Your task to perform on an android device: Open Reddit.com Image 0: 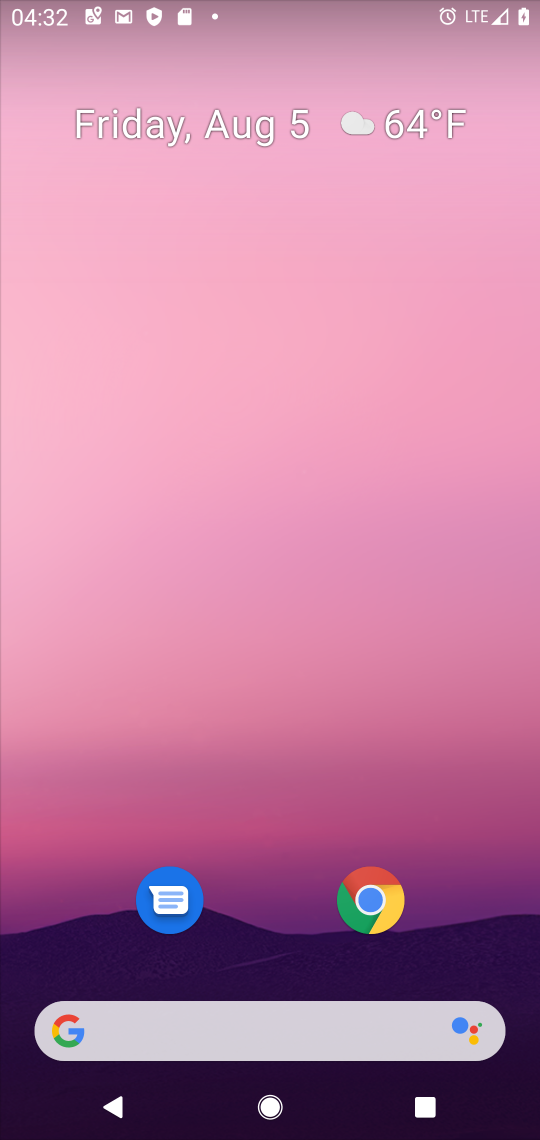
Step 0: click (362, 907)
Your task to perform on an android device: Open Reddit.com Image 1: 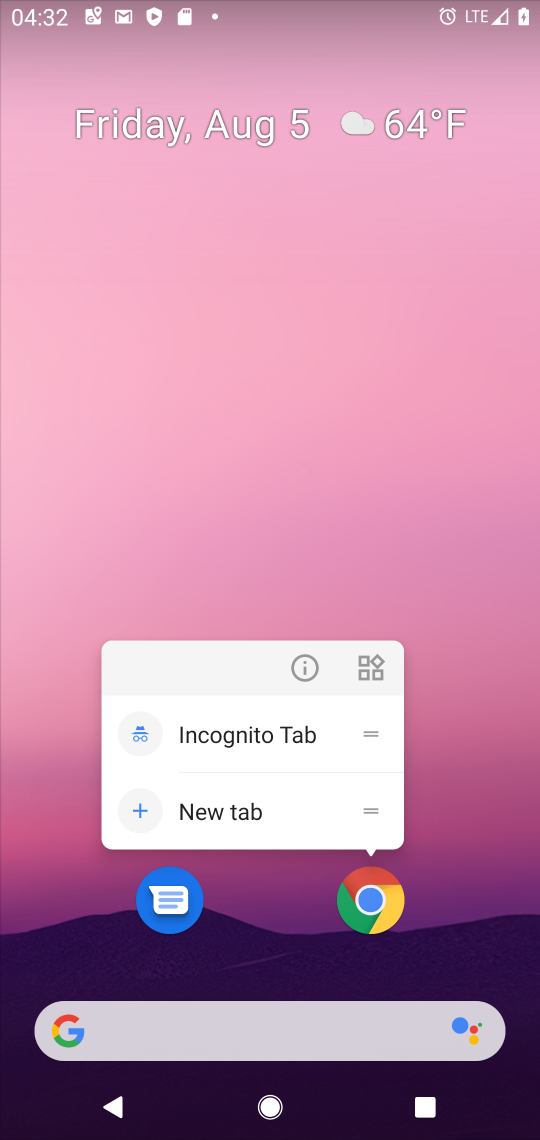
Step 1: click (368, 903)
Your task to perform on an android device: Open Reddit.com Image 2: 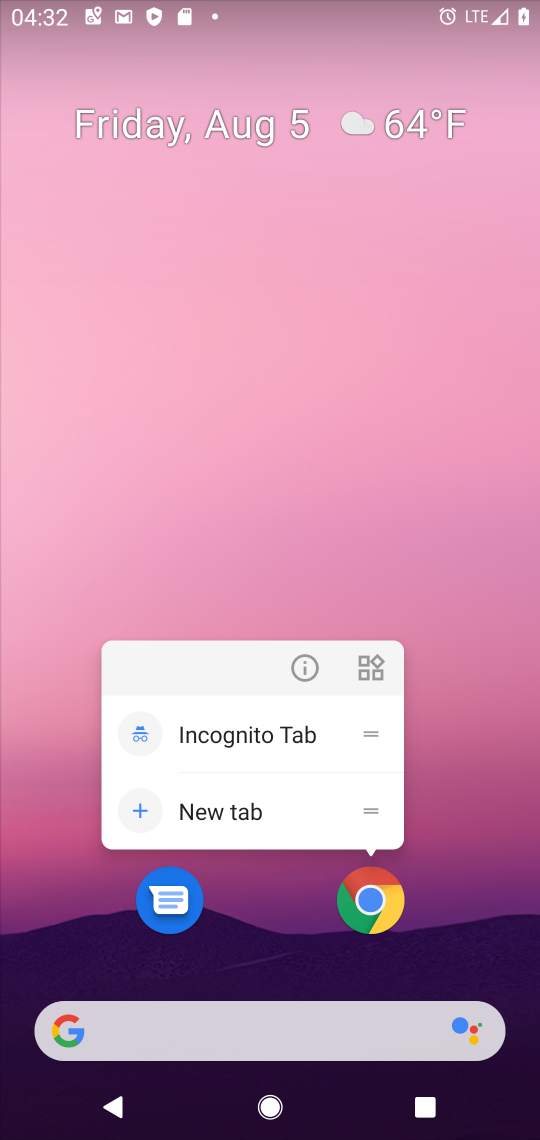
Step 2: click (381, 888)
Your task to perform on an android device: Open Reddit.com Image 3: 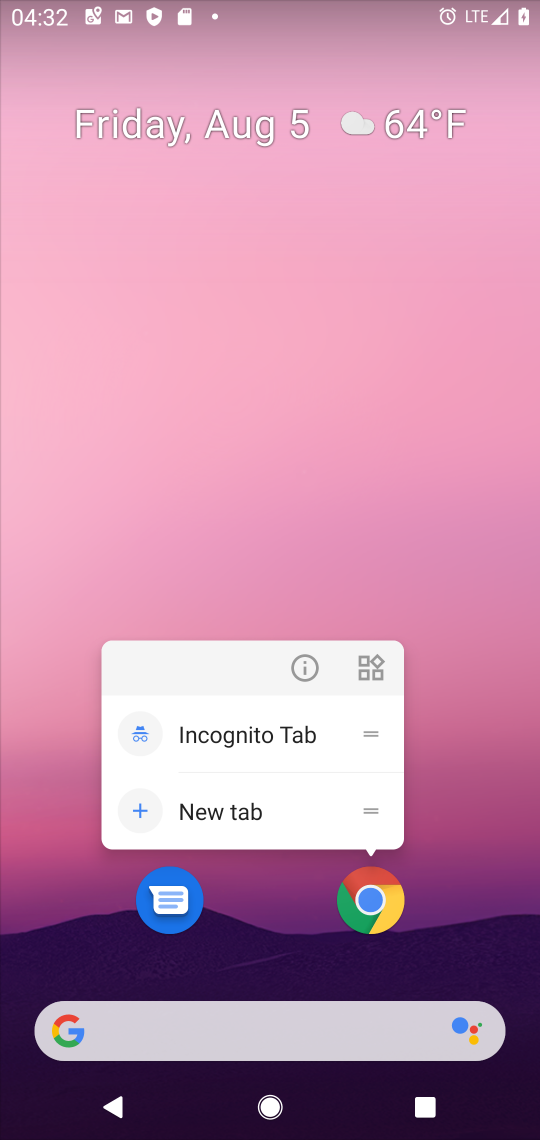
Step 3: click (381, 895)
Your task to perform on an android device: Open Reddit.com Image 4: 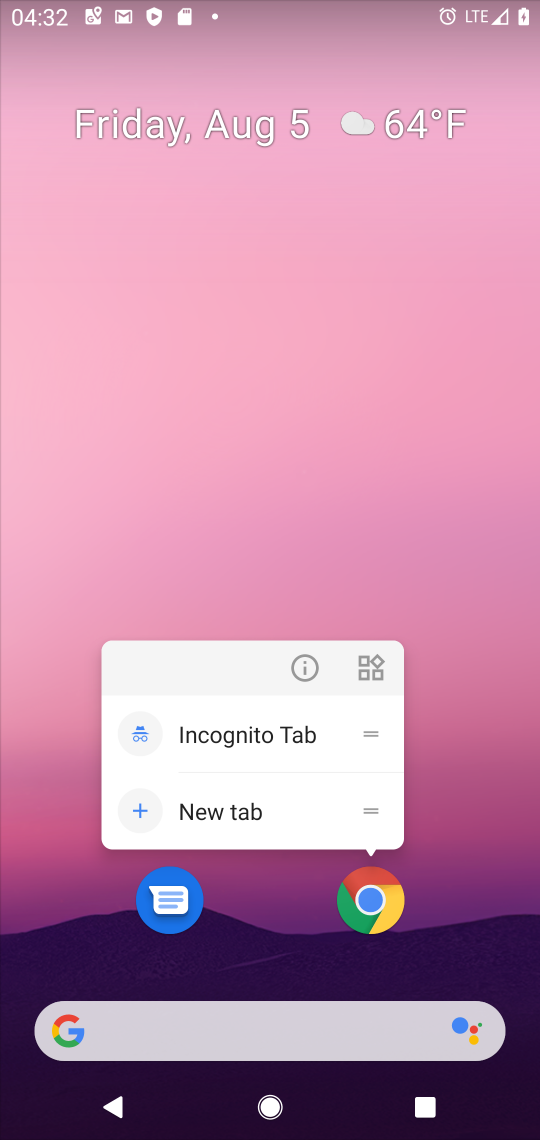
Step 4: click (375, 907)
Your task to perform on an android device: Open Reddit.com Image 5: 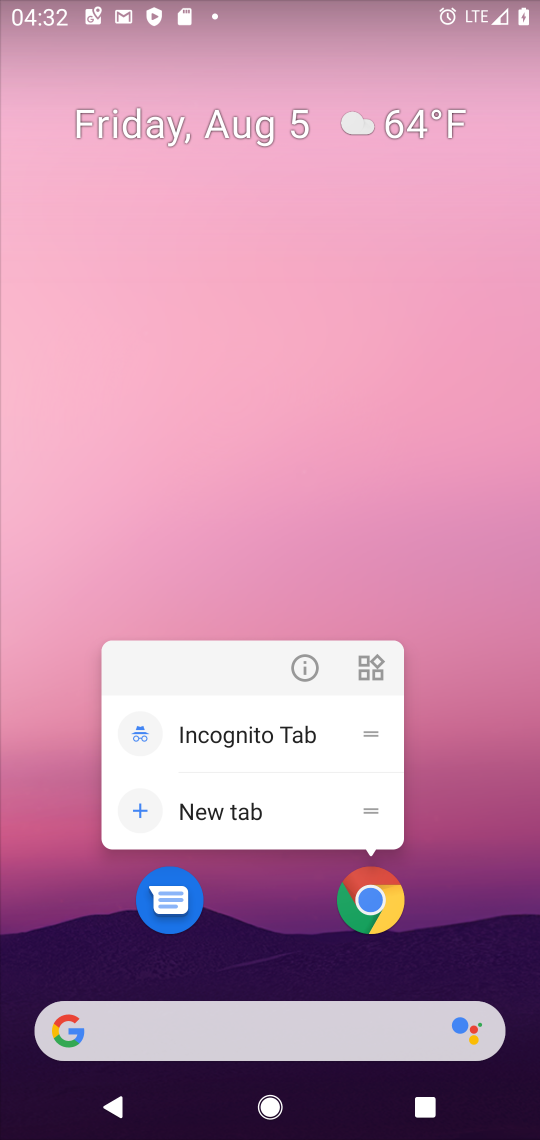
Step 5: click (375, 907)
Your task to perform on an android device: Open Reddit.com Image 6: 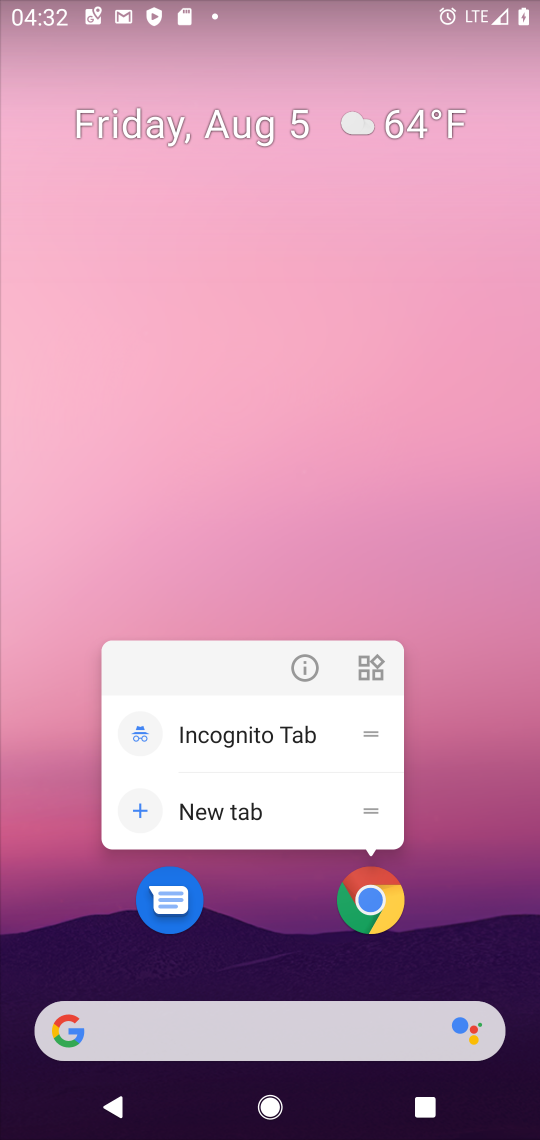
Step 6: click (380, 896)
Your task to perform on an android device: Open Reddit.com Image 7: 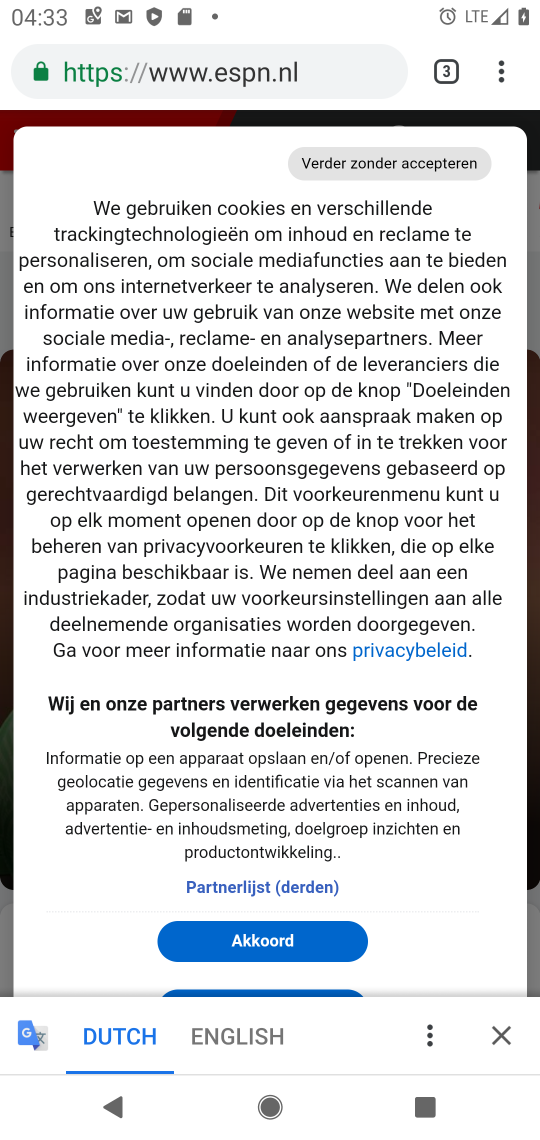
Step 7: click (453, 76)
Your task to perform on an android device: Open Reddit.com Image 8: 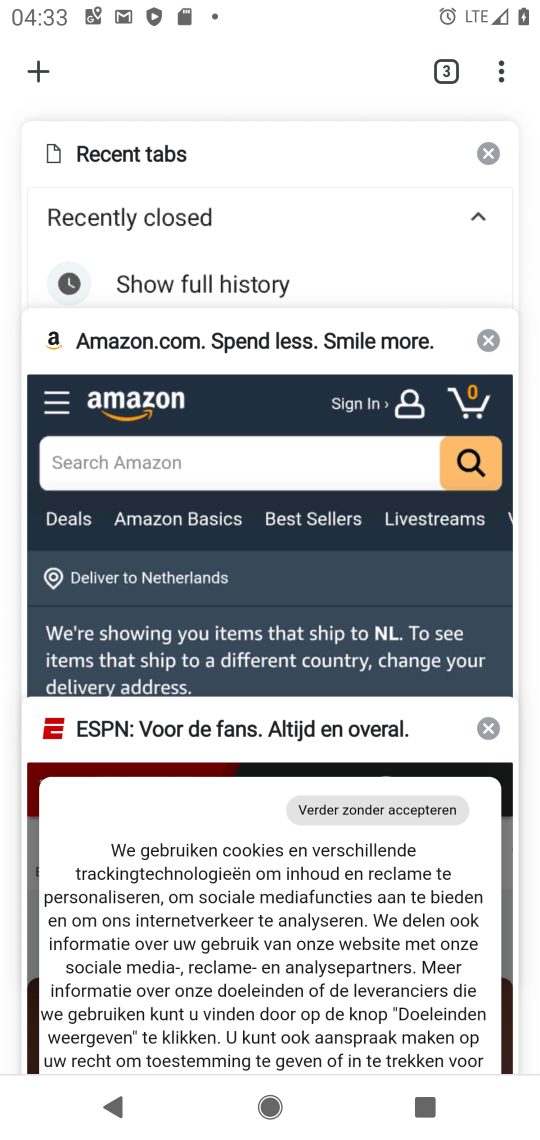
Step 8: click (59, 73)
Your task to perform on an android device: Open Reddit.com Image 9: 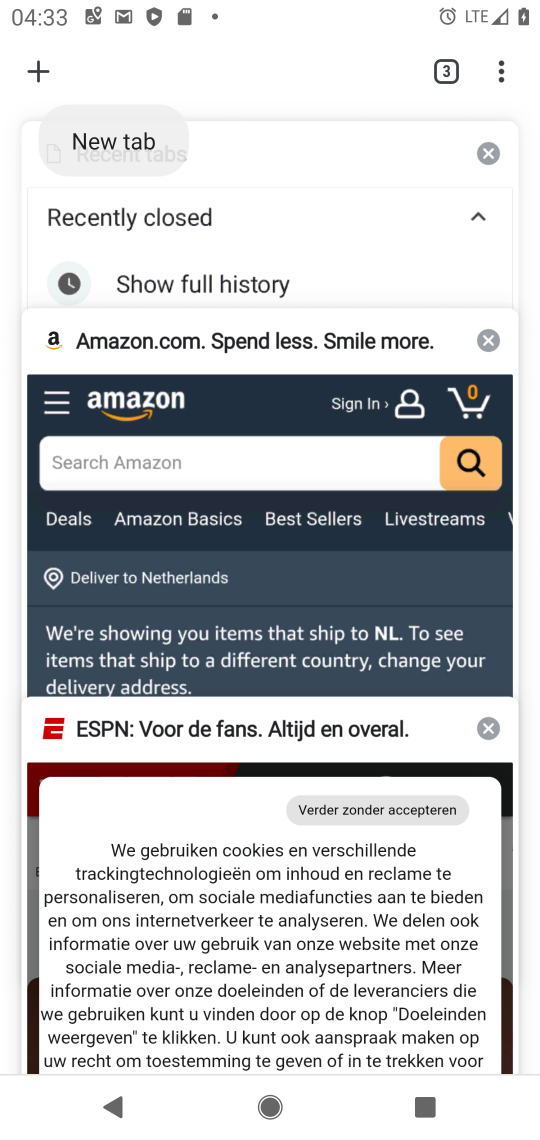
Step 9: click (33, 67)
Your task to perform on an android device: Open Reddit.com Image 10: 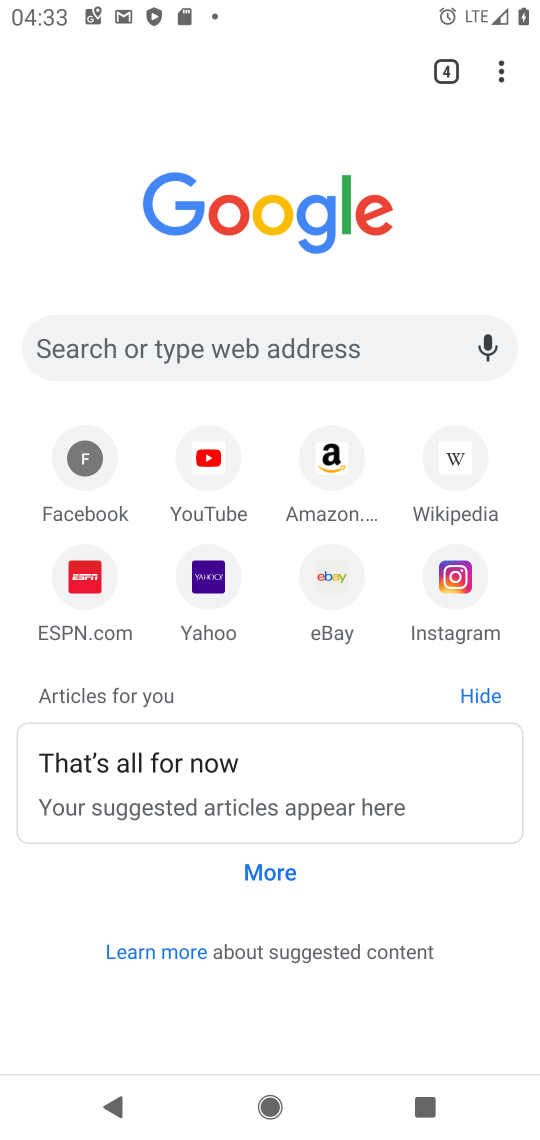
Step 10: click (191, 343)
Your task to perform on an android device: Open Reddit.com Image 11: 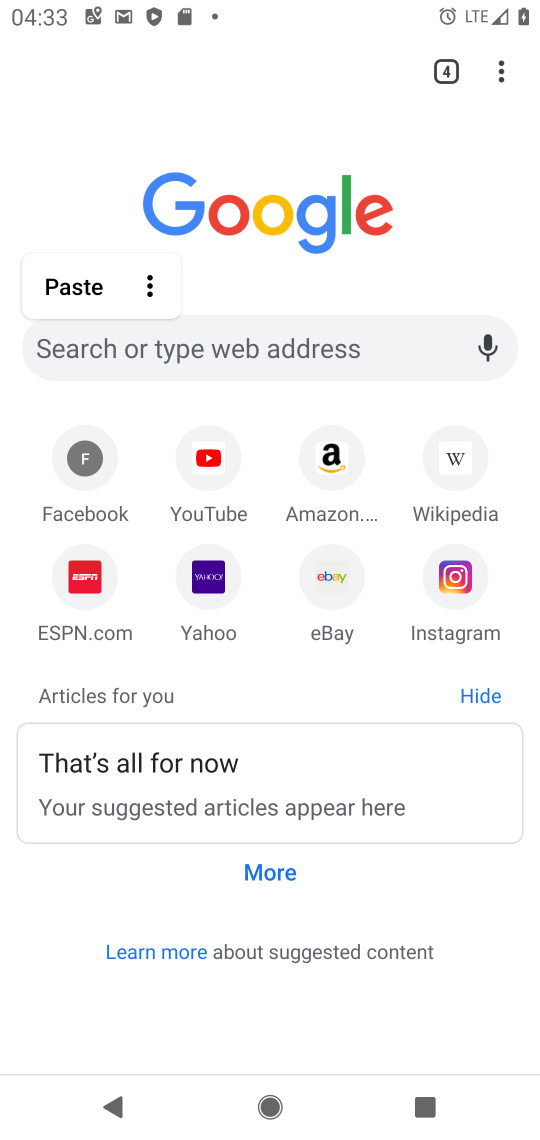
Step 11: type "reddit.com"
Your task to perform on an android device: Open Reddit.com Image 12: 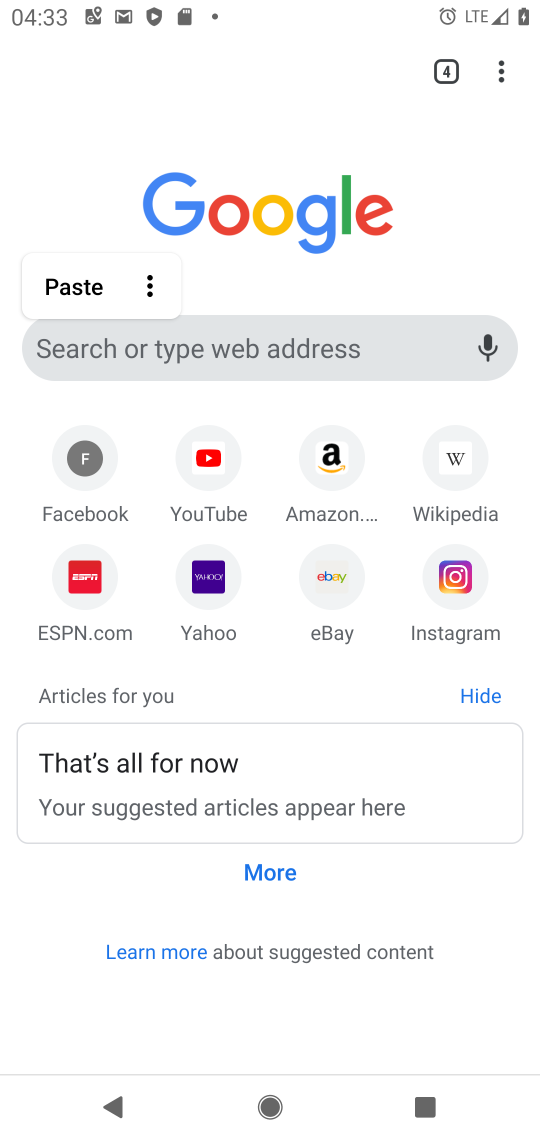
Step 12: click (327, 338)
Your task to perform on an android device: Open Reddit.com Image 13: 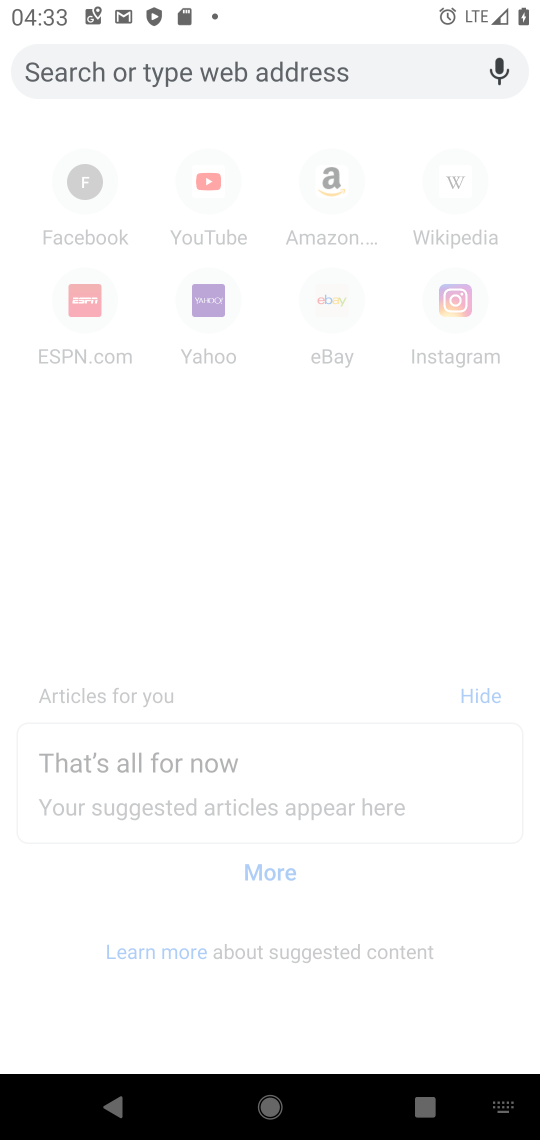
Step 13: type "reddit.com"
Your task to perform on an android device: Open Reddit.com Image 14: 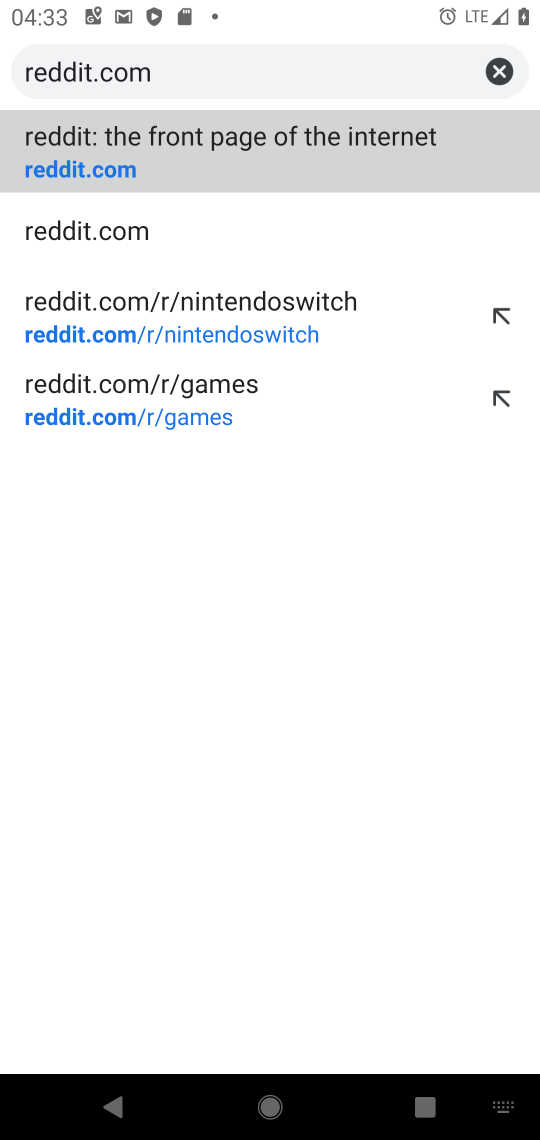
Step 14: click (222, 153)
Your task to perform on an android device: Open Reddit.com Image 15: 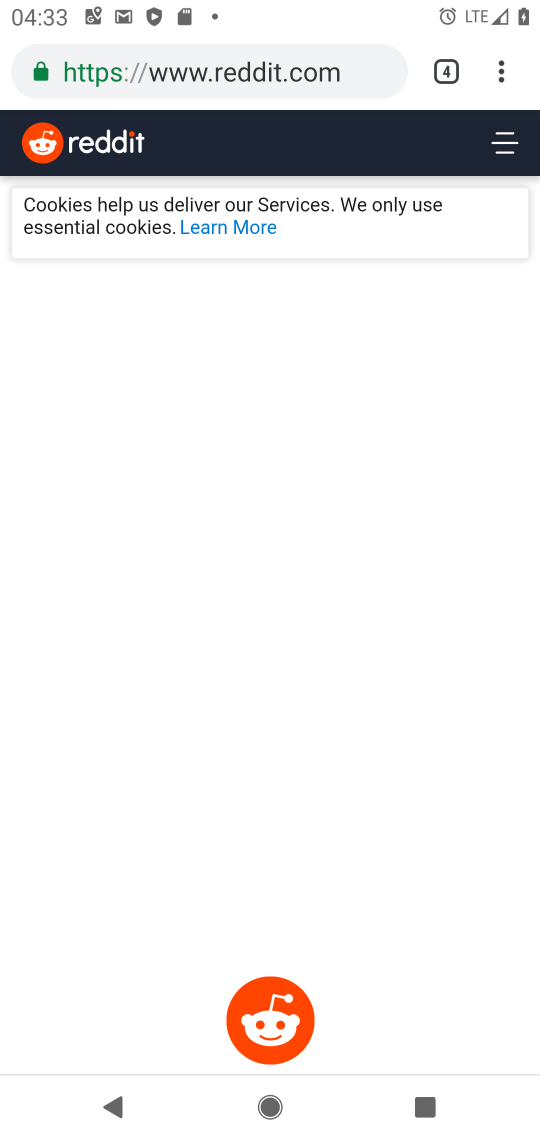
Step 15: task complete